Your task to perform on an android device: turn off sleep mode Image 0: 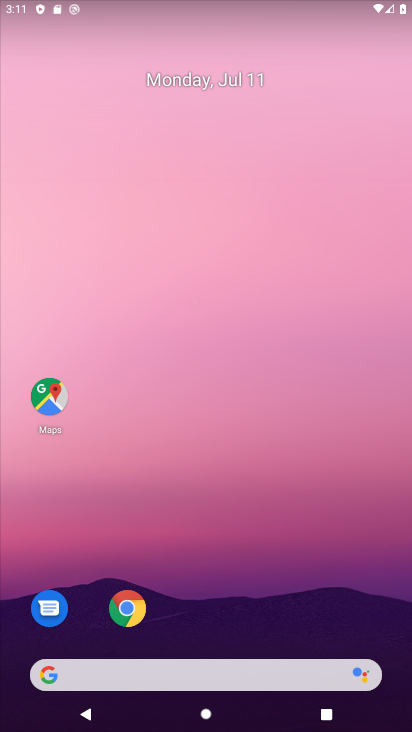
Step 0: drag from (265, 644) to (199, 38)
Your task to perform on an android device: turn off sleep mode Image 1: 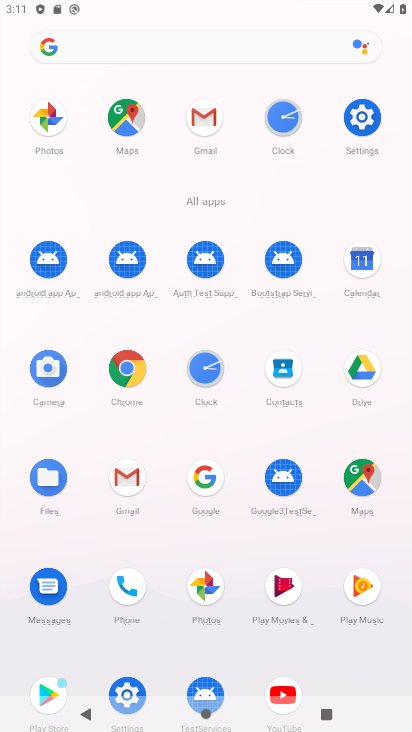
Step 1: click (364, 120)
Your task to perform on an android device: turn off sleep mode Image 2: 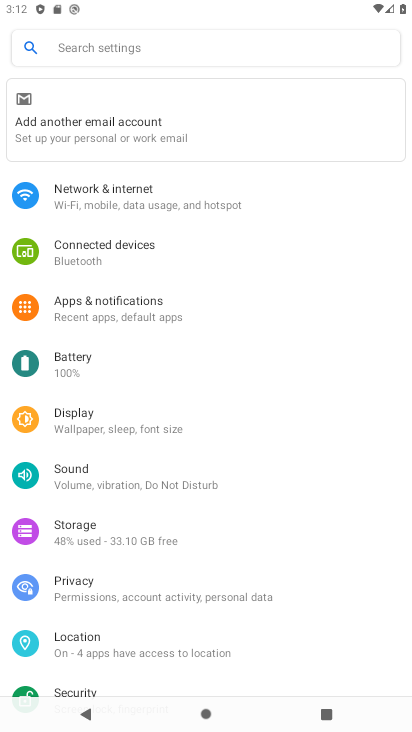
Step 2: drag from (123, 472) to (157, 386)
Your task to perform on an android device: turn off sleep mode Image 3: 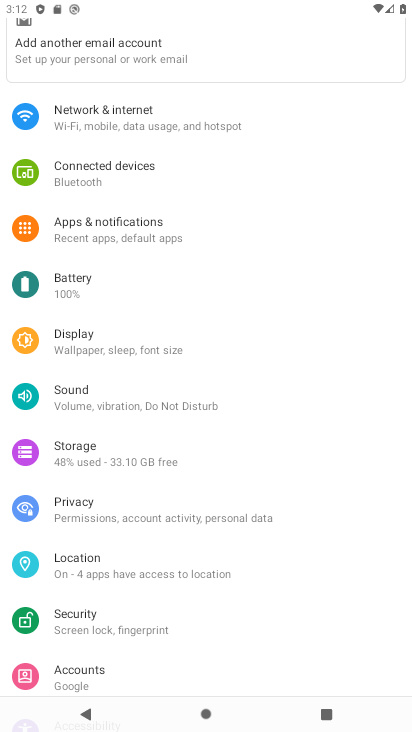
Step 3: drag from (127, 297) to (151, 244)
Your task to perform on an android device: turn off sleep mode Image 4: 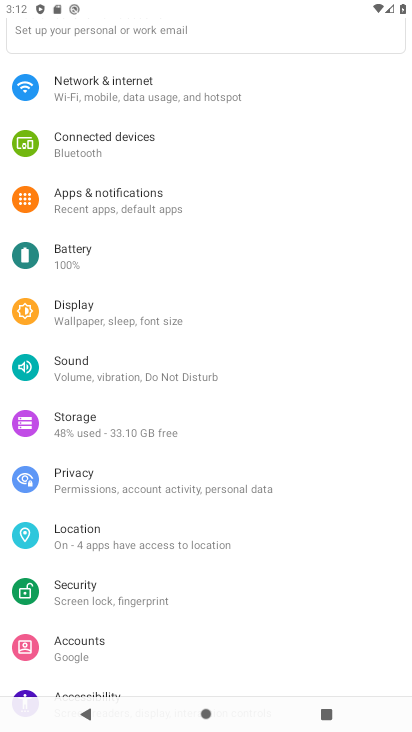
Step 4: click (103, 322)
Your task to perform on an android device: turn off sleep mode Image 5: 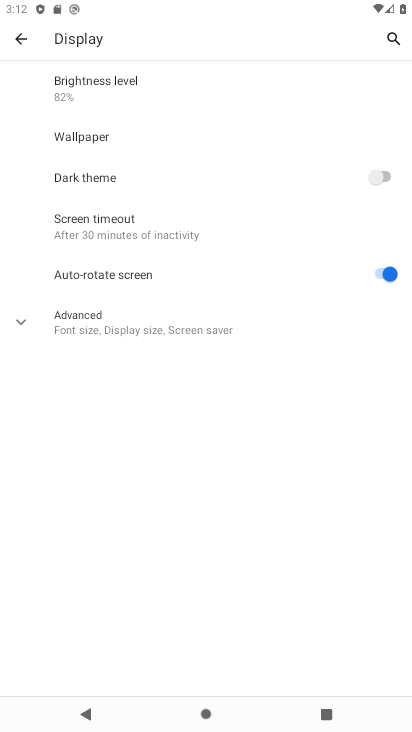
Step 5: click (120, 318)
Your task to perform on an android device: turn off sleep mode Image 6: 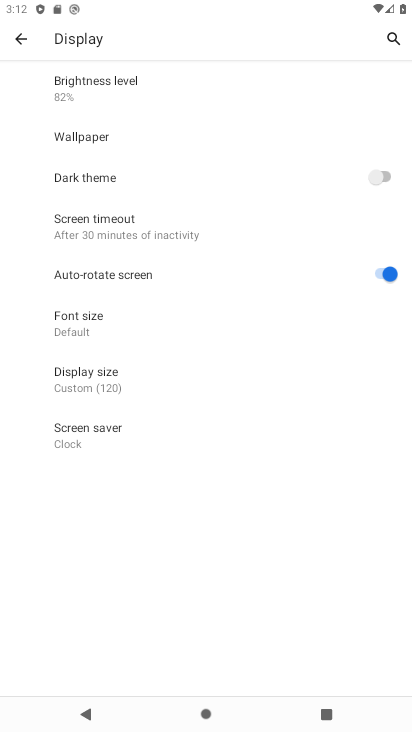
Step 6: task complete